Your task to perform on an android device: open device folders in google photos Image 0: 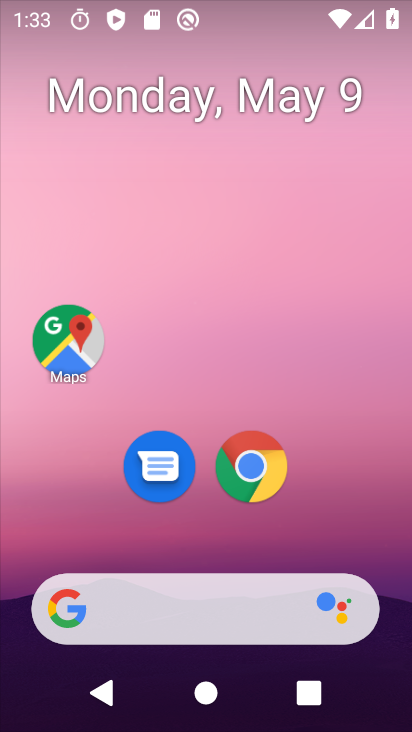
Step 0: drag from (144, 514) to (161, 330)
Your task to perform on an android device: open device folders in google photos Image 1: 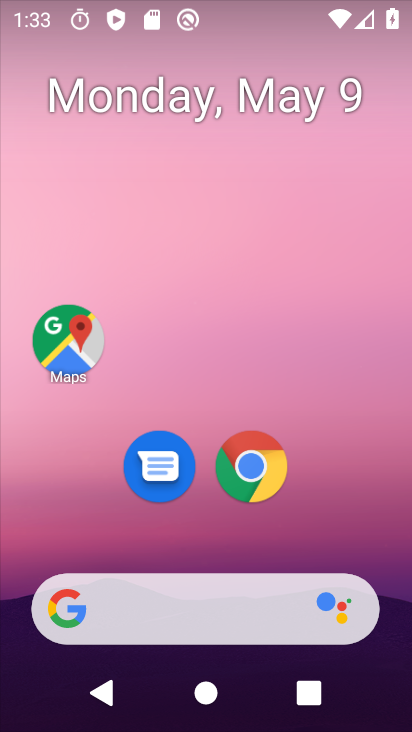
Step 1: drag from (202, 574) to (211, 327)
Your task to perform on an android device: open device folders in google photos Image 2: 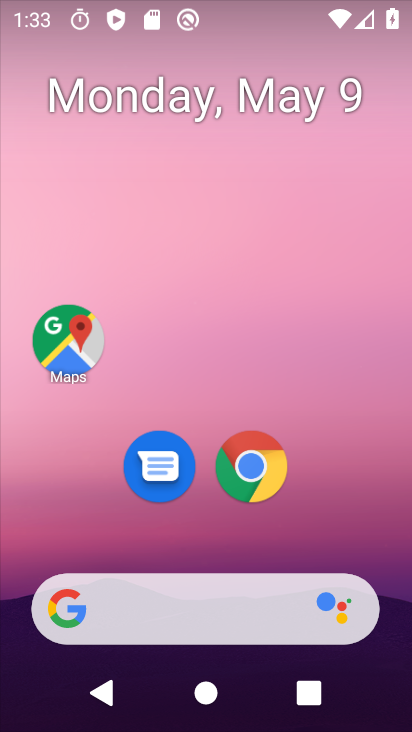
Step 2: drag from (209, 600) to (200, 257)
Your task to perform on an android device: open device folders in google photos Image 3: 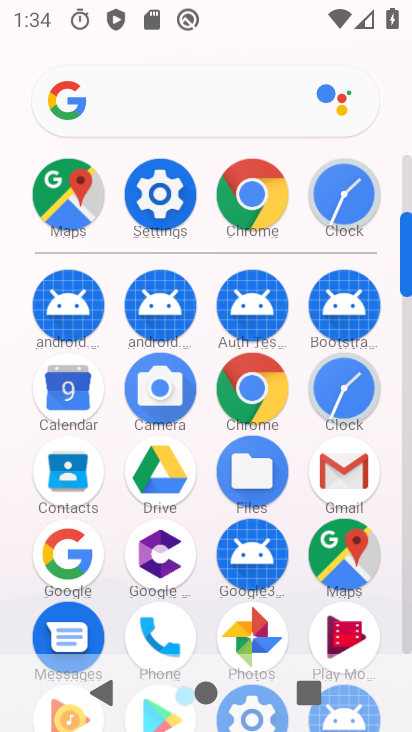
Step 3: click (256, 637)
Your task to perform on an android device: open device folders in google photos Image 4: 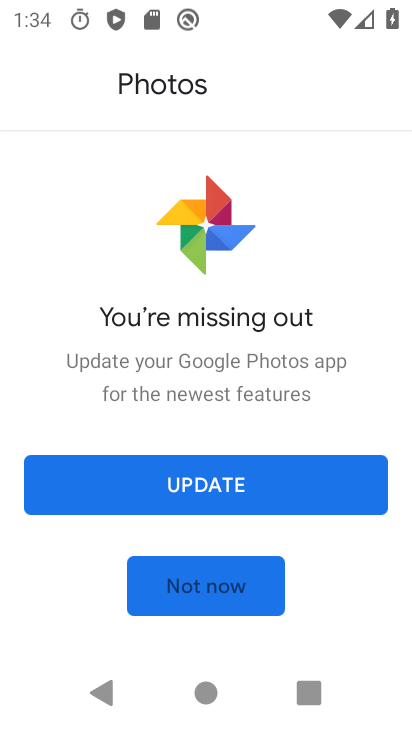
Step 4: click (249, 608)
Your task to perform on an android device: open device folders in google photos Image 5: 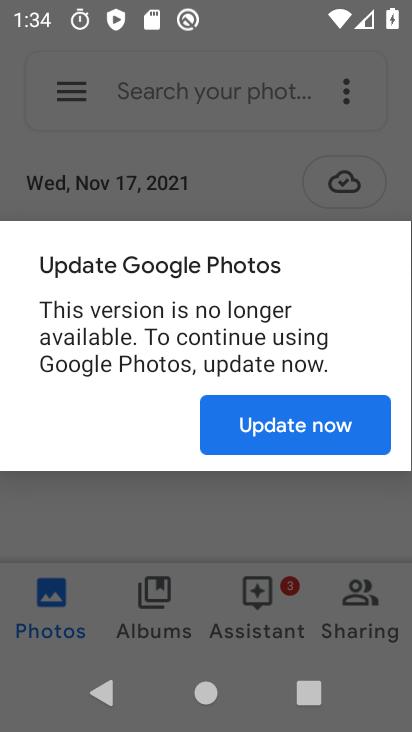
Step 5: task complete